Your task to perform on an android device: Search for vegetarian restaurants on Maps Image 0: 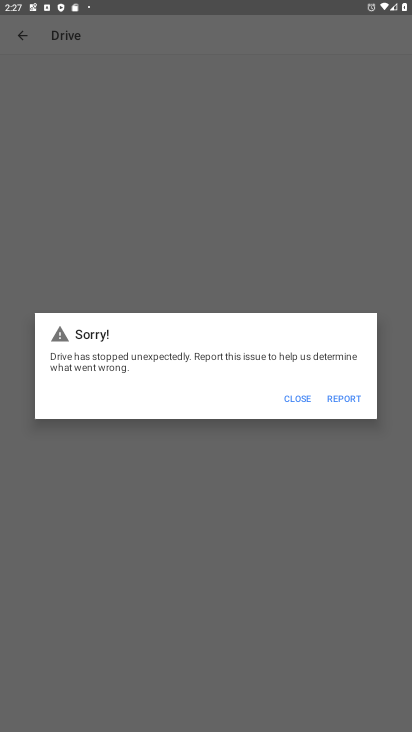
Step 0: press home button
Your task to perform on an android device: Search for vegetarian restaurants on Maps Image 1: 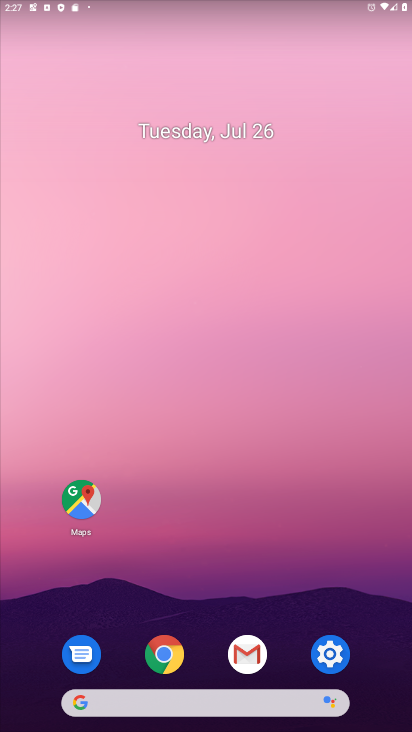
Step 1: drag from (175, 719) to (129, 186)
Your task to perform on an android device: Search for vegetarian restaurants on Maps Image 2: 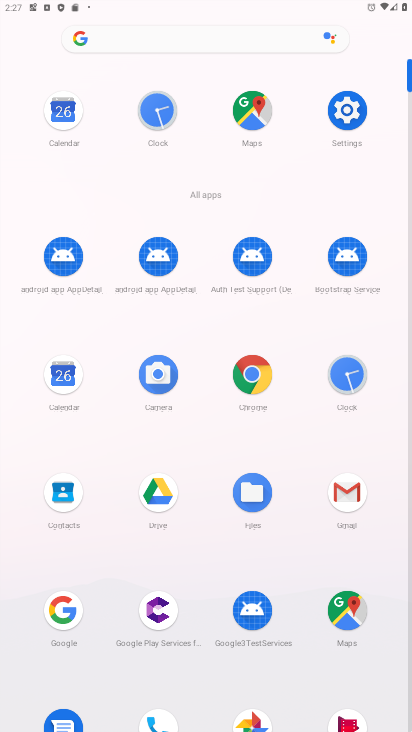
Step 2: click (351, 599)
Your task to perform on an android device: Search for vegetarian restaurants on Maps Image 3: 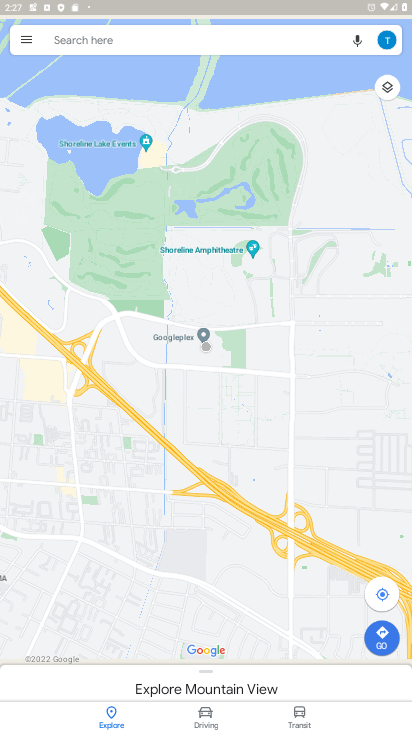
Step 3: click (81, 41)
Your task to perform on an android device: Search for vegetarian restaurants on Maps Image 4: 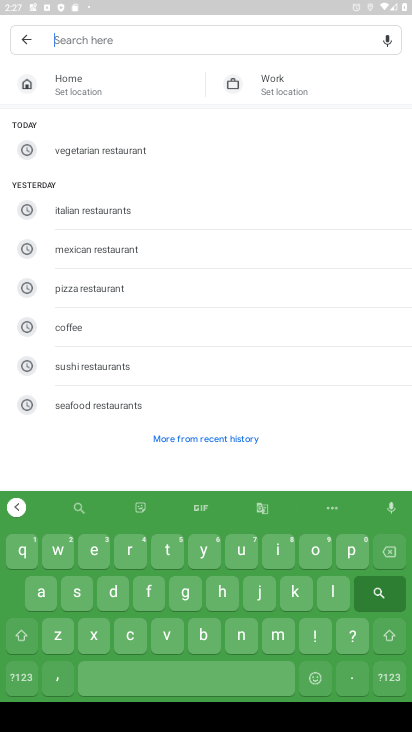
Step 4: click (104, 150)
Your task to perform on an android device: Search for vegetarian restaurants on Maps Image 5: 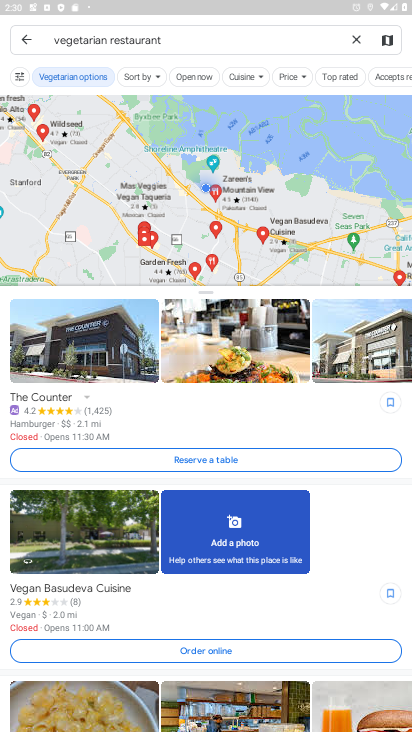
Step 5: task complete